Your task to perform on an android device: turn on the 24-hour format for clock Image 0: 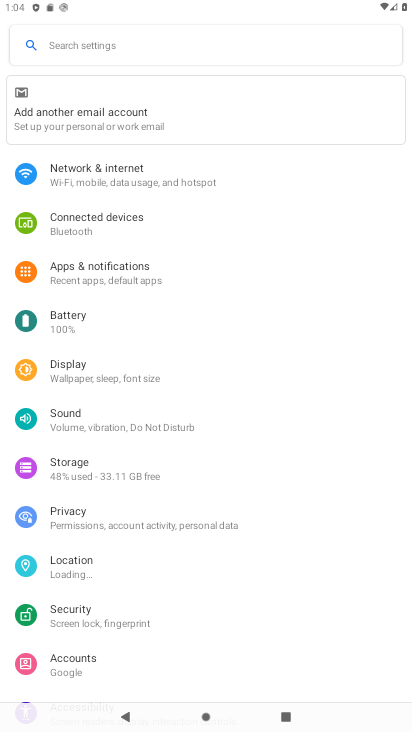
Step 0: press home button
Your task to perform on an android device: turn on the 24-hour format for clock Image 1: 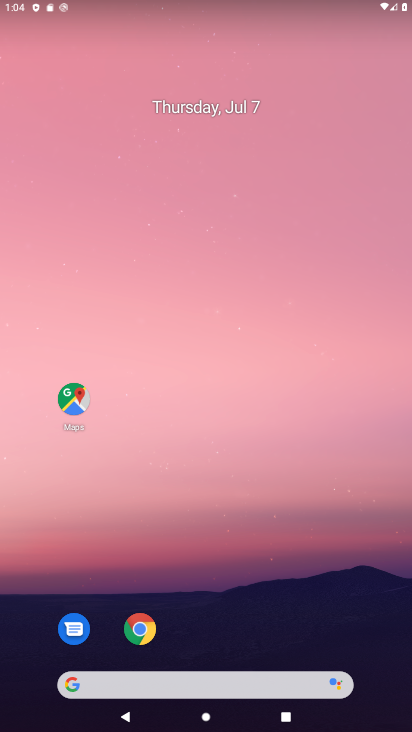
Step 1: drag from (246, 610) to (252, 107)
Your task to perform on an android device: turn on the 24-hour format for clock Image 2: 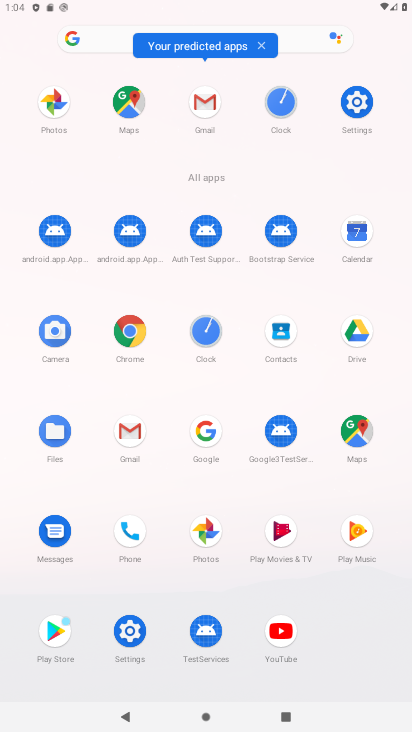
Step 2: click (290, 106)
Your task to perform on an android device: turn on the 24-hour format for clock Image 3: 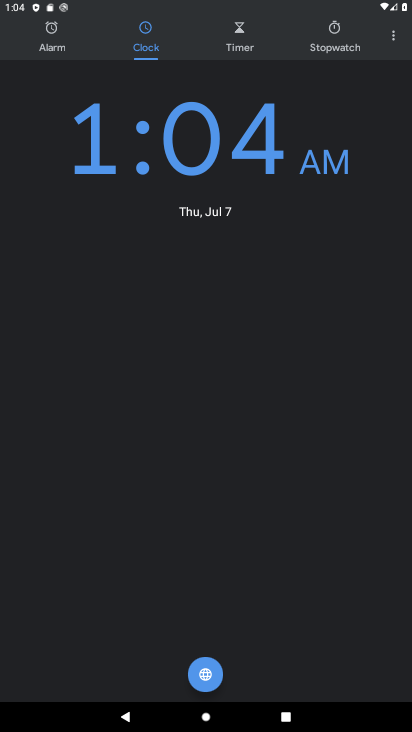
Step 3: click (401, 28)
Your task to perform on an android device: turn on the 24-hour format for clock Image 4: 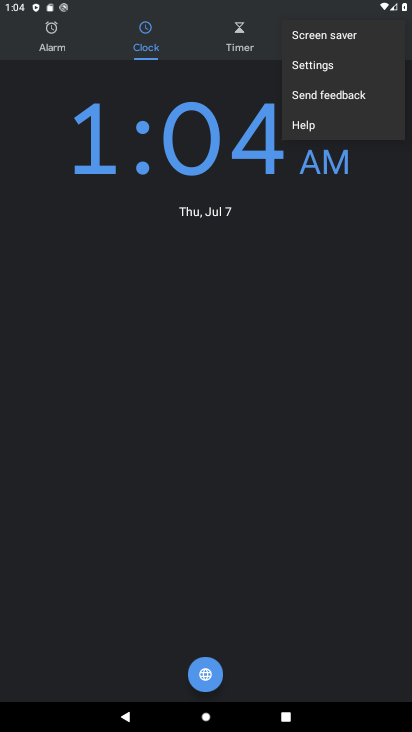
Step 4: click (375, 61)
Your task to perform on an android device: turn on the 24-hour format for clock Image 5: 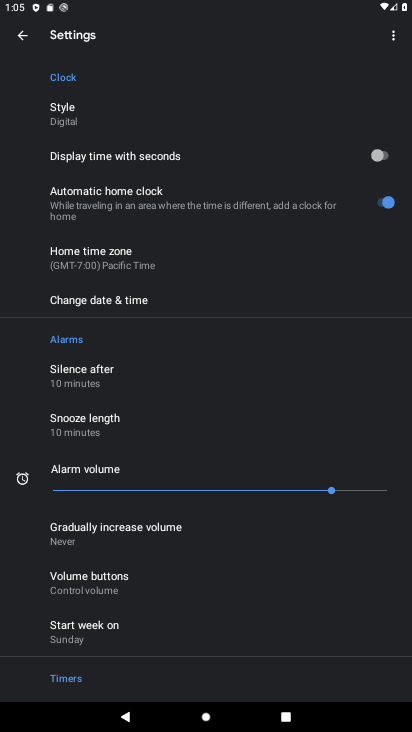
Step 5: click (199, 298)
Your task to perform on an android device: turn on the 24-hour format for clock Image 6: 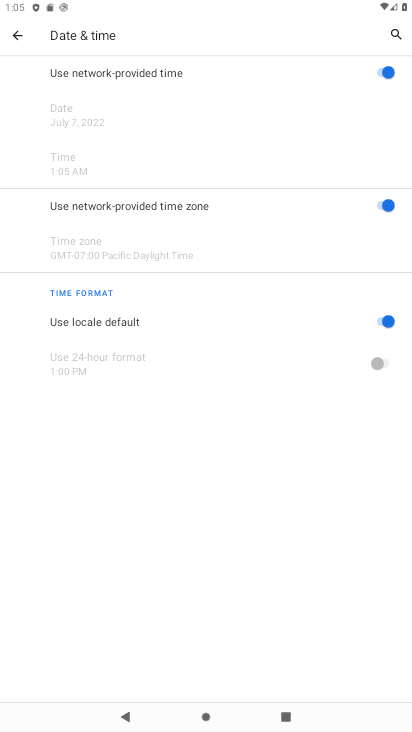
Step 6: click (389, 327)
Your task to perform on an android device: turn on the 24-hour format for clock Image 7: 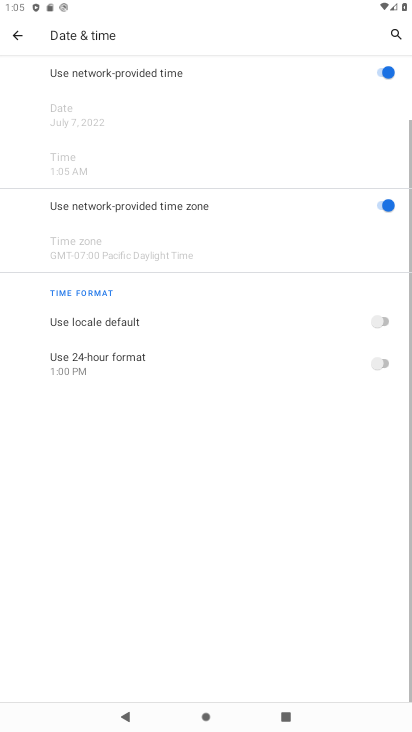
Step 7: click (390, 360)
Your task to perform on an android device: turn on the 24-hour format for clock Image 8: 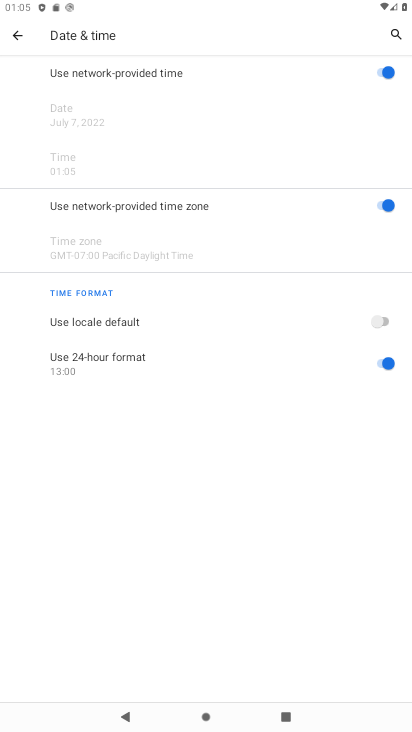
Step 8: task complete